Your task to perform on an android device: toggle data saver in the chrome app Image 0: 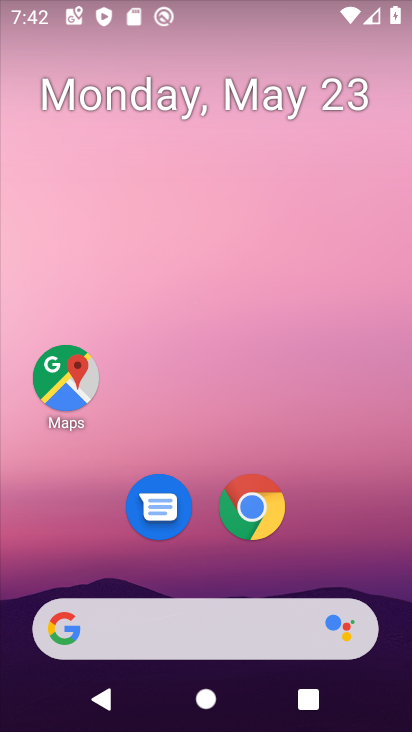
Step 0: drag from (358, 534) to (363, 209)
Your task to perform on an android device: toggle data saver in the chrome app Image 1: 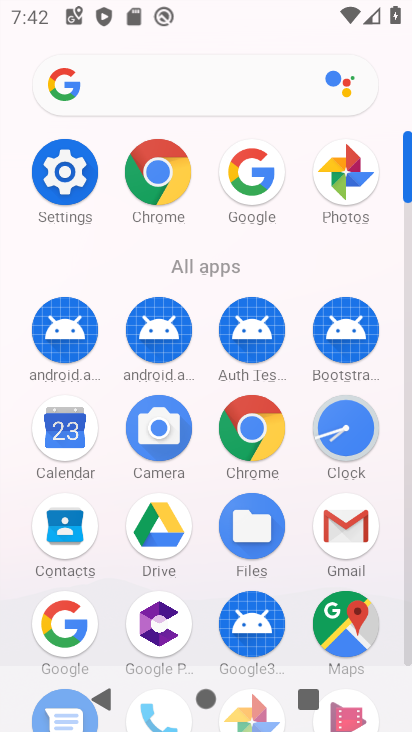
Step 1: click (250, 418)
Your task to perform on an android device: toggle data saver in the chrome app Image 2: 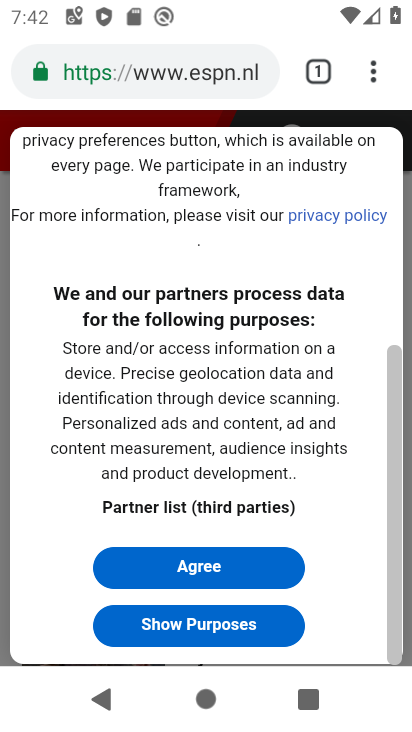
Step 2: drag from (379, 60) to (202, 510)
Your task to perform on an android device: toggle data saver in the chrome app Image 3: 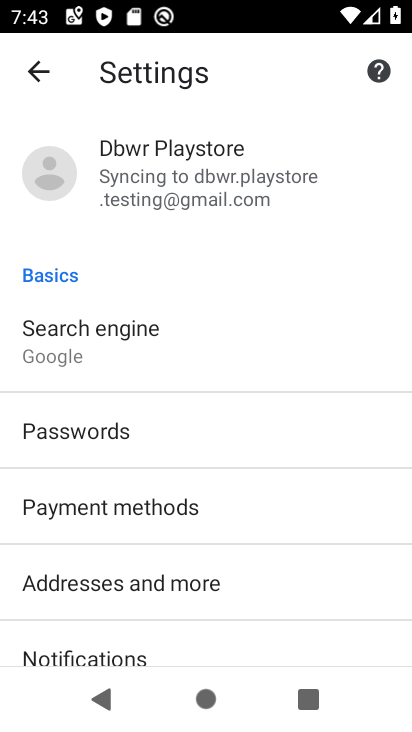
Step 3: drag from (247, 636) to (283, 287)
Your task to perform on an android device: toggle data saver in the chrome app Image 4: 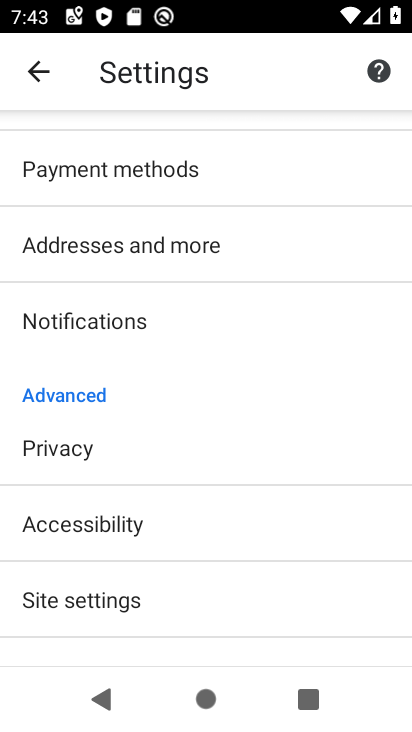
Step 4: drag from (287, 593) to (296, 269)
Your task to perform on an android device: toggle data saver in the chrome app Image 5: 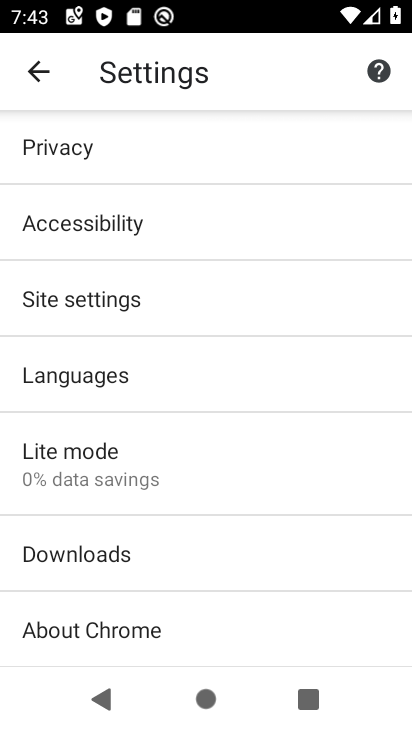
Step 5: click (199, 462)
Your task to perform on an android device: toggle data saver in the chrome app Image 6: 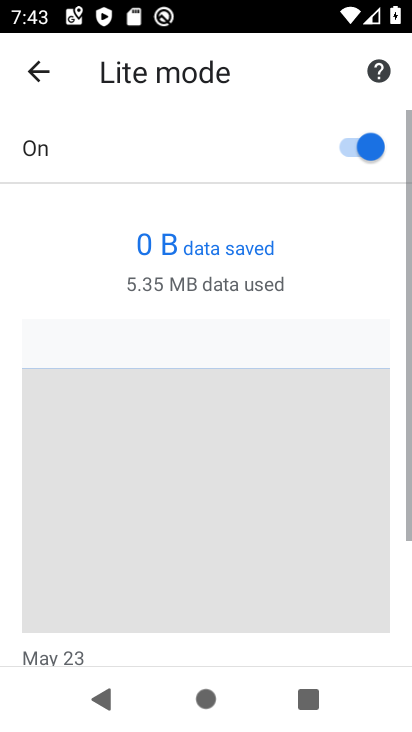
Step 6: click (359, 149)
Your task to perform on an android device: toggle data saver in the chrome app Image 7: 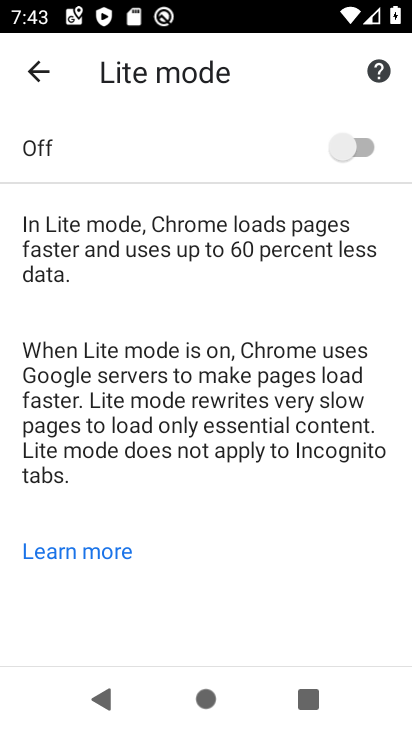
Step 7: task complete